Your task to perform on an android device: toggle data saver in the chrome app Image 0: 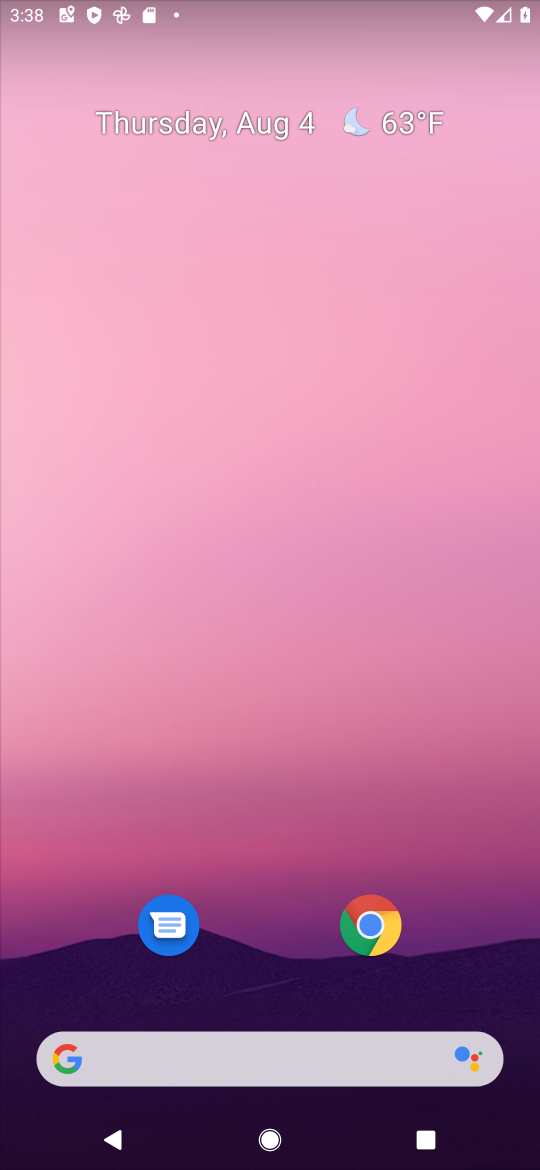
Step 0: click (392, 1062)
Your task to perform on an android device: toggle data saver in the chrome app Image 1: 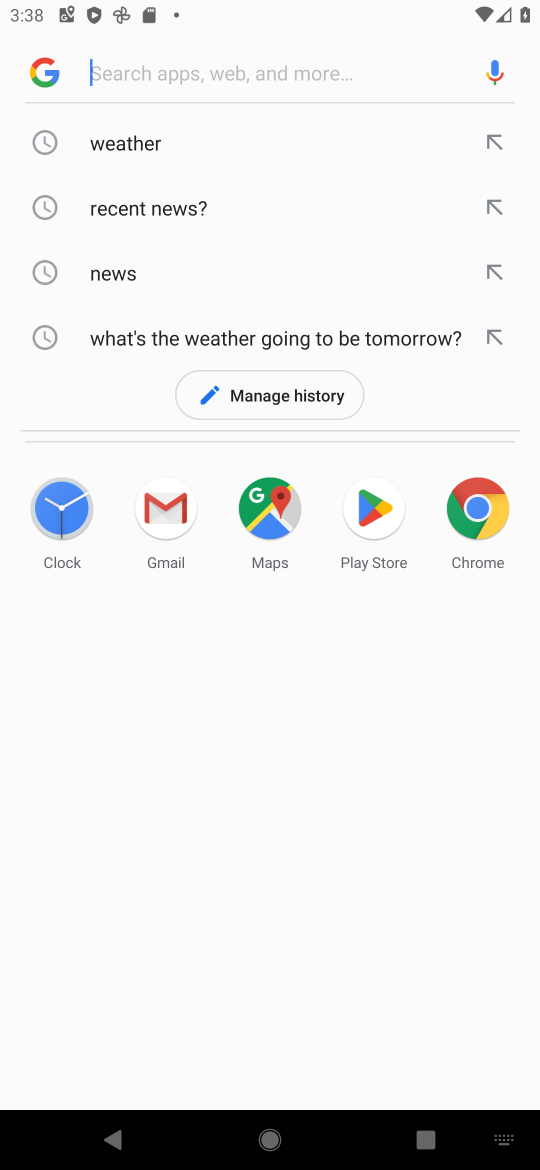
Step 1: click (488, 513)
Your task to perform on an android device: toggle data saver in the chrome app Image 2: 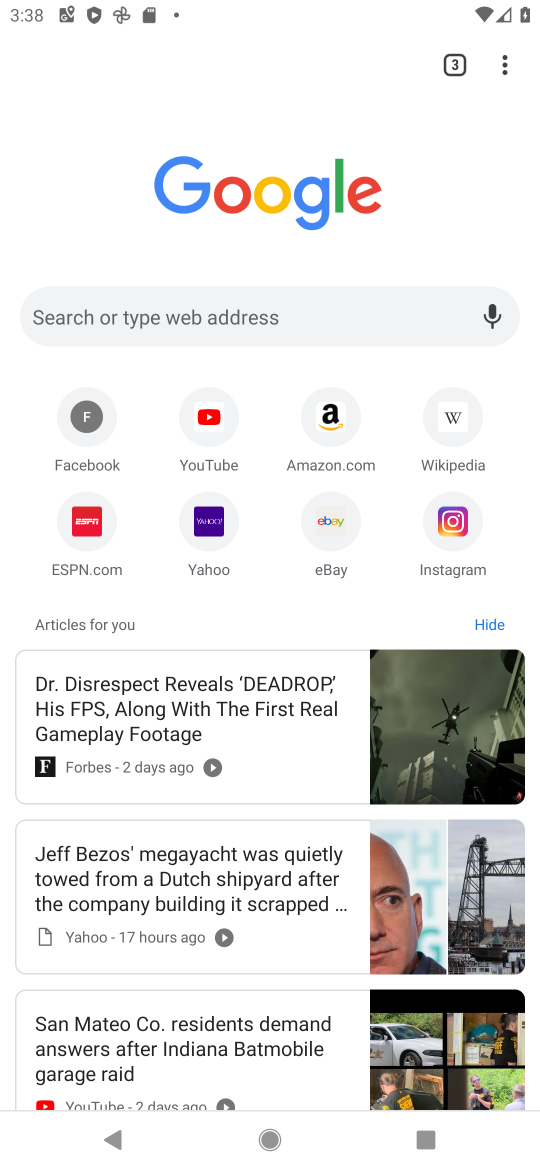
Step 2: click (502, 59)
Your task to perform on an android device: toggle data saver in the chrome app Image 3: 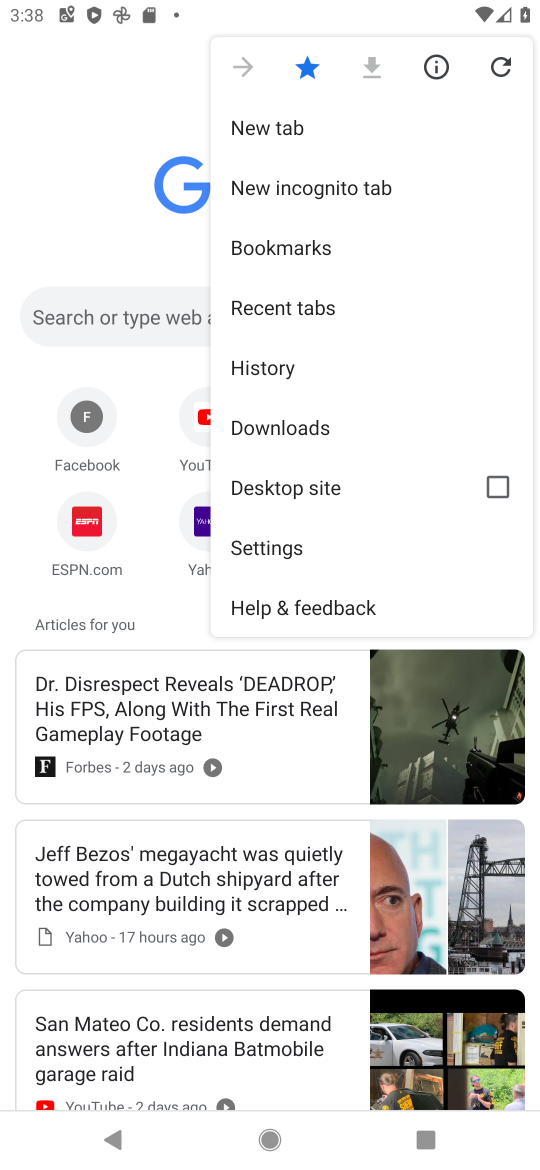
Step 3: click (277, 543)
Your task to perform on an android device: toggle data saver in the chrome app Image 4: 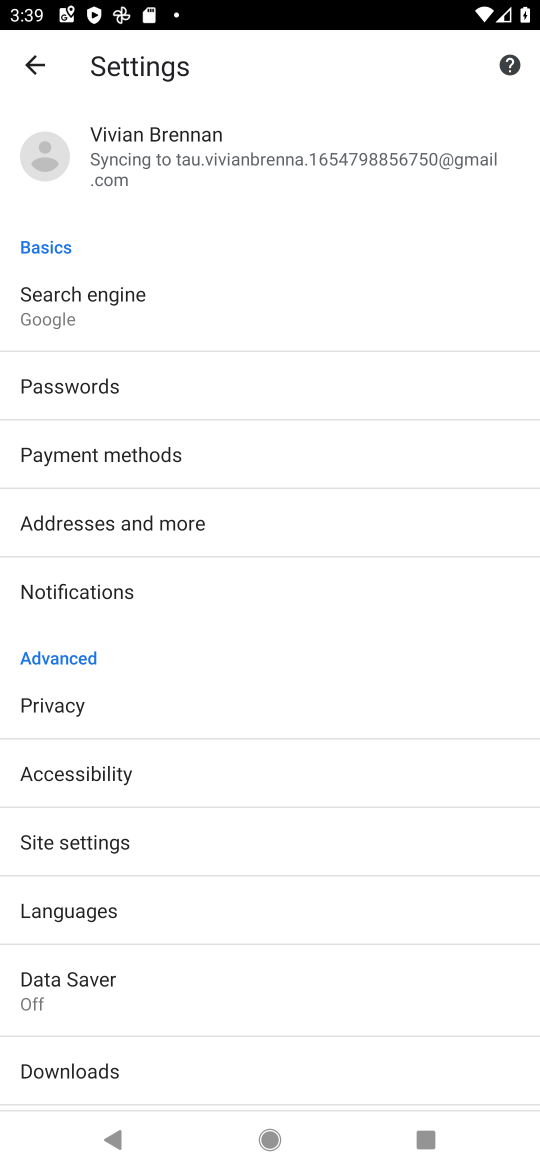
Step 4: click (51, 988)
Your task to perform on an android device: toggle data saver in the chrome app Image 5: 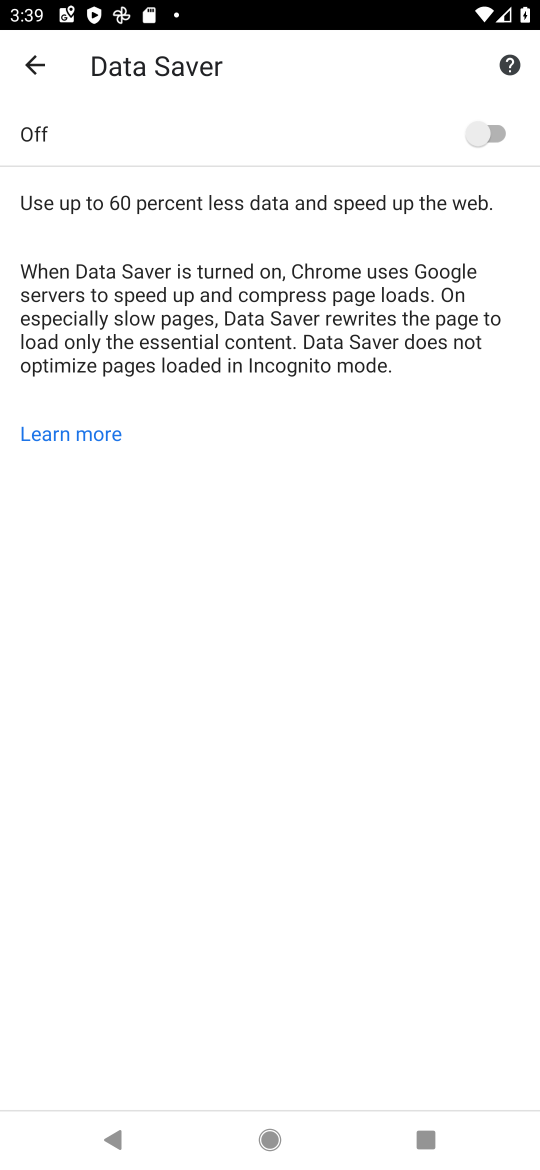
Step 5: click (484, 131)
Your task to perform on an android device: toggle data saver in the chrome app Image 6: 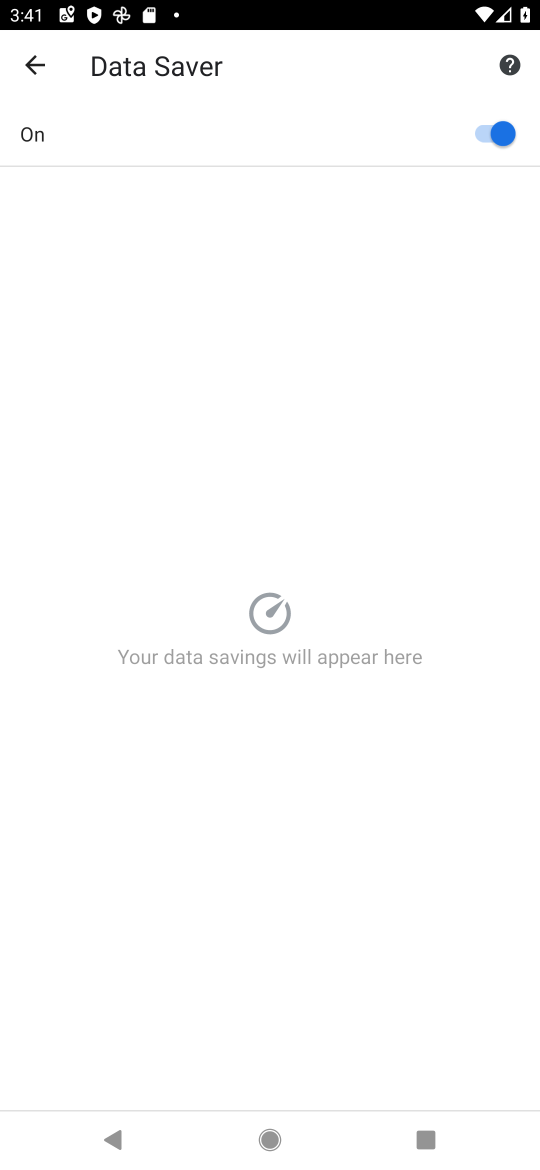
Step 6: task complete